Your task to perform on an android device: add a label to a message in the gmail app Image 0: 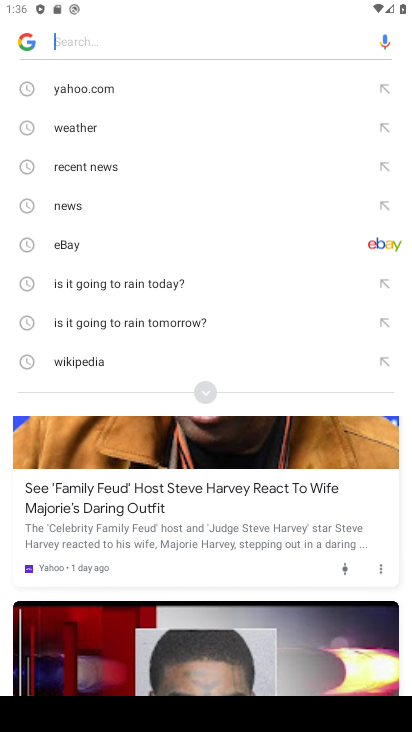
Step 0: press back button
Your task to perform on an android device: add a label to a message in the gmail app Image 1: 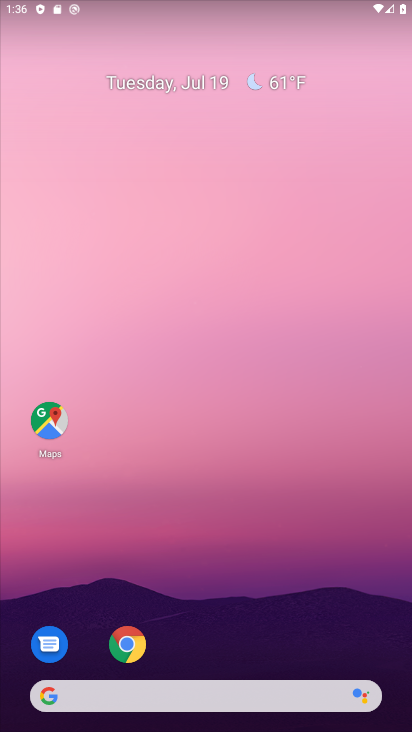
Step 1: drag from (214, 660) to (169, 70)
Your task to perform on an android device: add a label to a message in the gmail app Image 2: 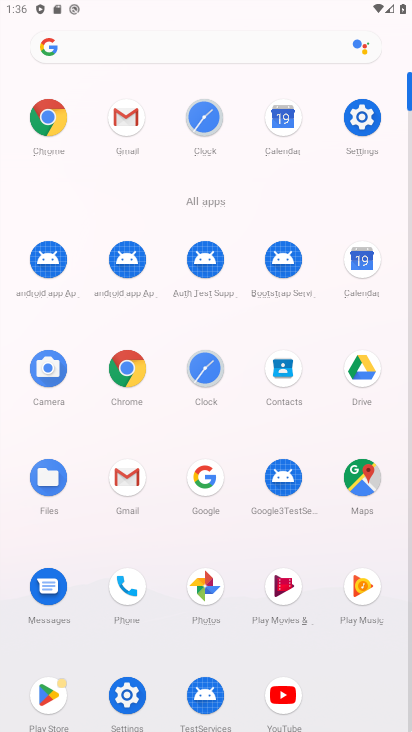
Step 2: click (120, 490)
Your task to perform on an android device: add a label to a message in the gmail app Image 3: 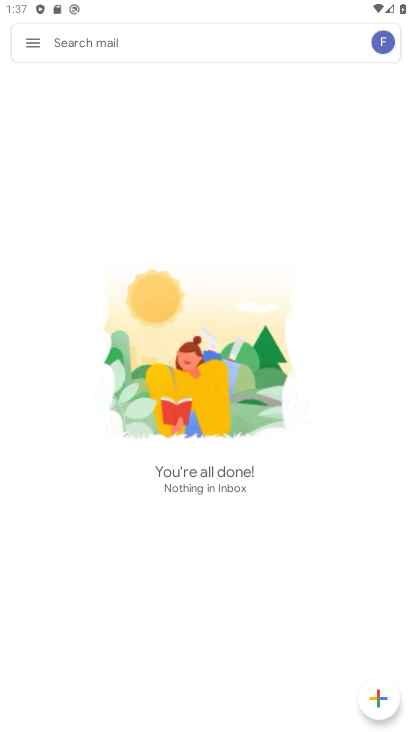
Step 3: task complete